Your task to perform on an android device: Open Maps and search for coffee Image 0: 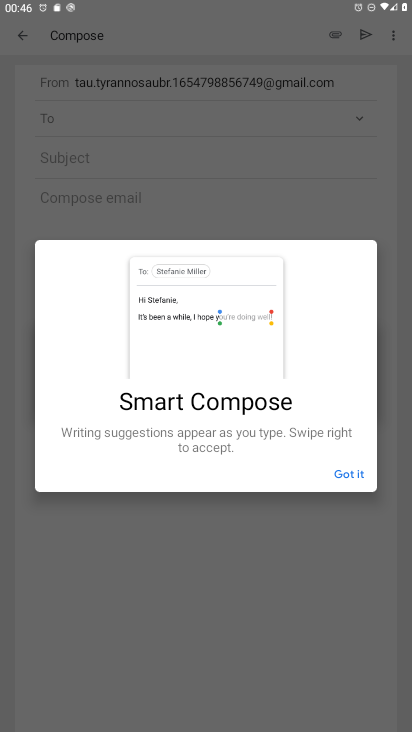
Step 0: press home button
Your task to perform on an android device: Open Maps and search for coffee Image 1: 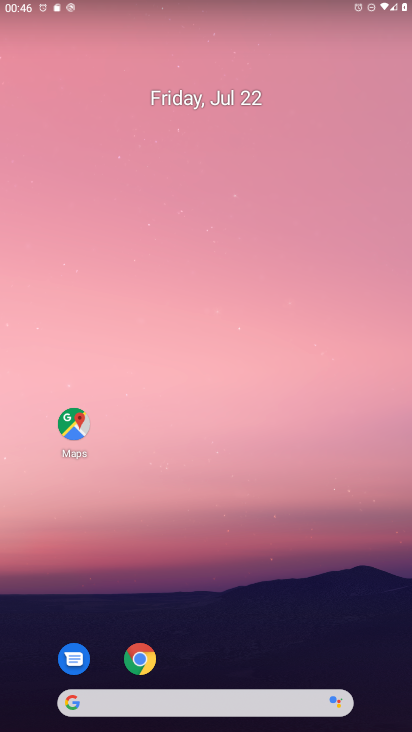
Step 1: click (75, 427)
Your task to perform on an android device: Open Maps and search for coffee Image 2: 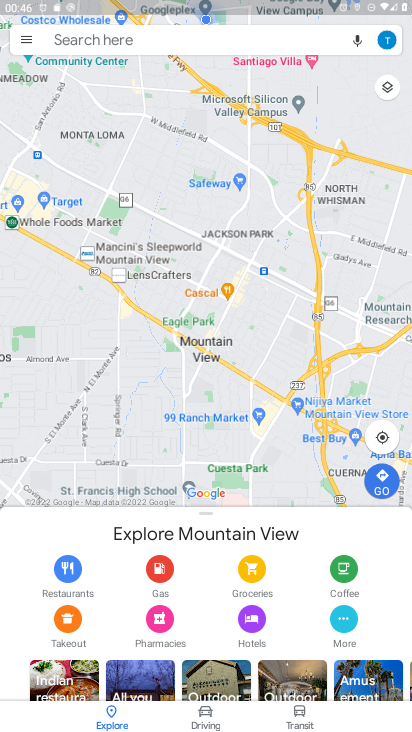
Step 2: click (206, 41)
Your task to perform on an android device: Open Maps and search for coffee Image 3: 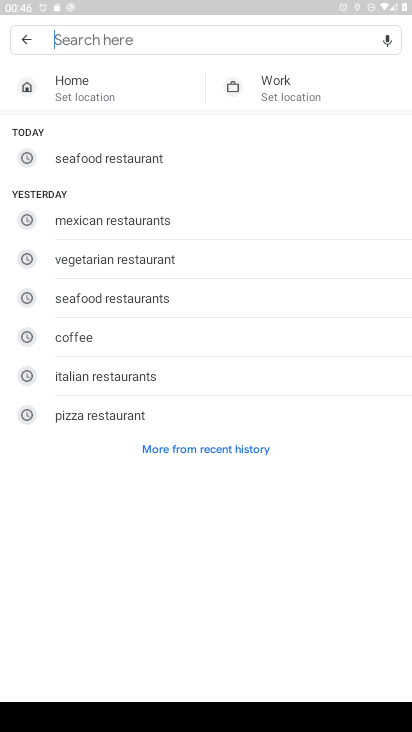
Step 3: type "coffee "
Your task to perform on an android device: Open Maps and search for coffee Image 4: 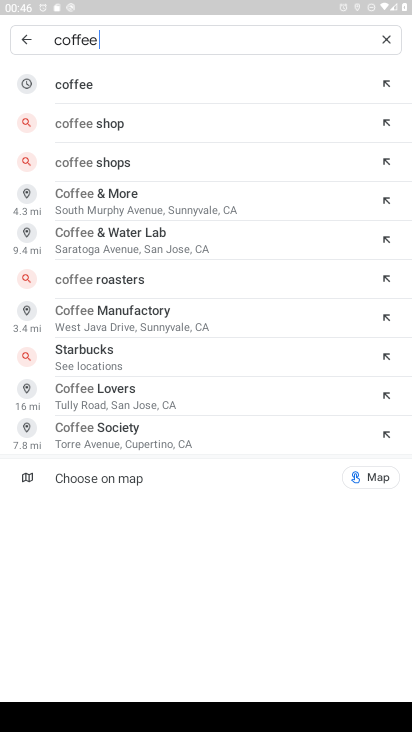
Step 4: click (88, 80)
Your task to perform on an android device: Open Maps and search for coffee Image 5: 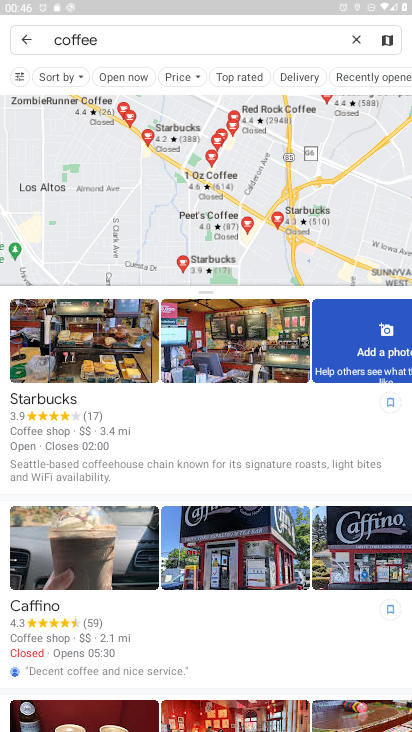
Step 5: task complete